Your task to perform on an android device: change notifications settings Image 0: 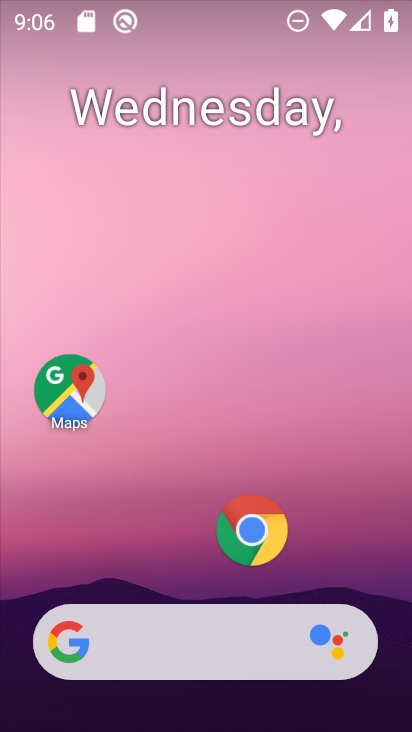
Step 0: drag from (164, 595) to (217, 68)
Your task to perform on an android device: change notifications settings Image 1: 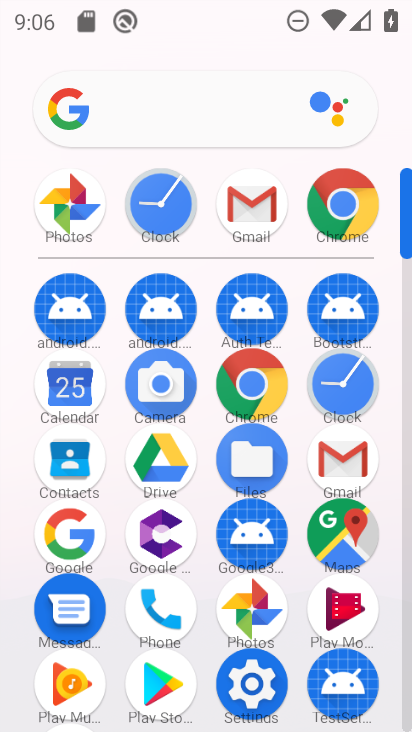
Step 1: click (248, 696)
Your task to perform on an android device: change notifications settings Image 2: 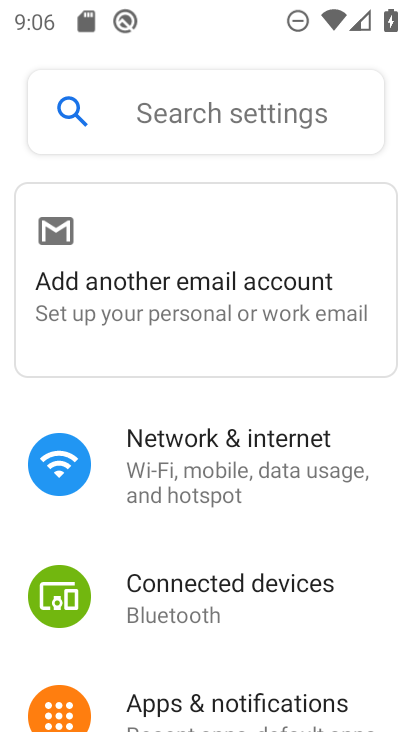
Step 2: click (196, 694)
Your task to perform on an android device: change notifications settings Image 3: 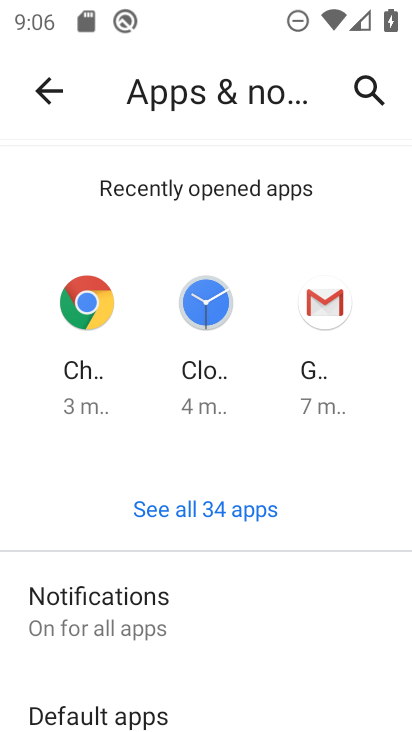
Step 3: drag from (189, 704) to (265, 352)
Your task to perform on an android device: change notifications settings Image 4: 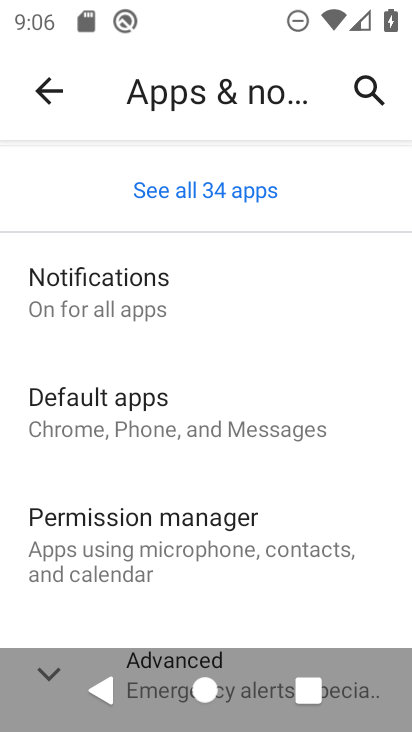
Step 4: click (150, 280)
Your task to perform on an android device: change notifications settings Image 5: 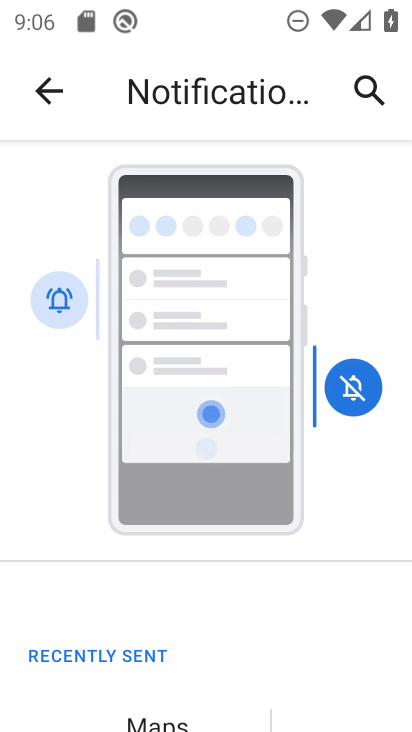
Step 5: drag from (164, 675) to (276, 114)
Your task to perform on an android device: change notifications settings Image 6: 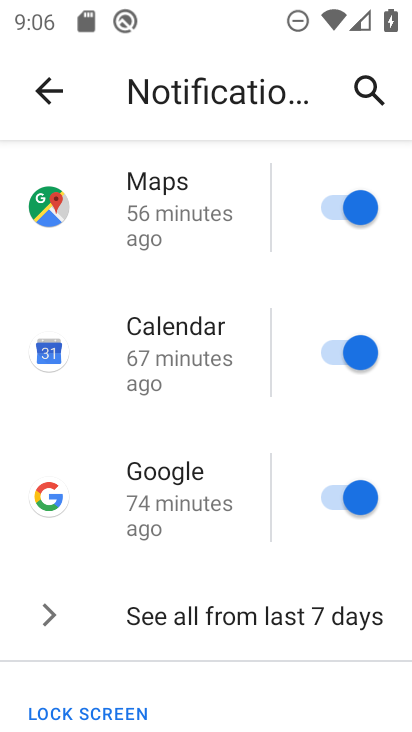
Step 6: drag from (211, 636) to (238, 192)
Your task to perform on an android device: change notifications settings Image 7: 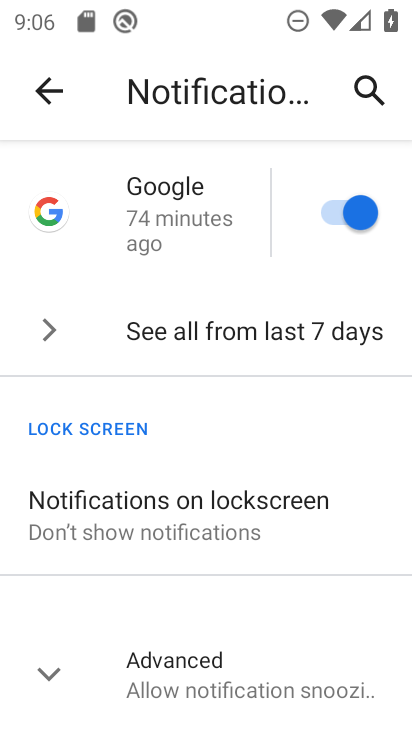
Step 7: click (186, 666)
Your task to perform on an android device: change notifications settings Image 8: 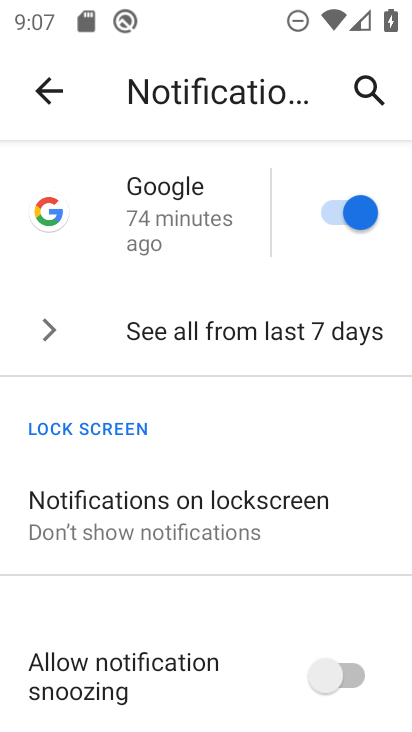
Step 8: drag from (177, 656) to (213, 402)
Your task to perform on an android device: change notifications settings Image 9: 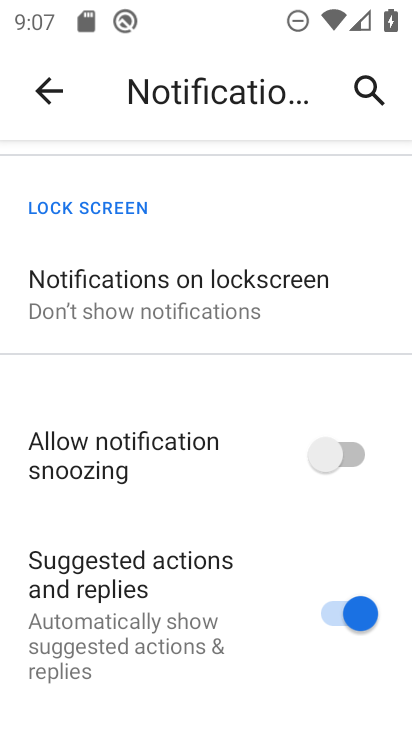
Step 9: click (341, 445)
Your task to perform on an android device: change notifications settings Image 10: 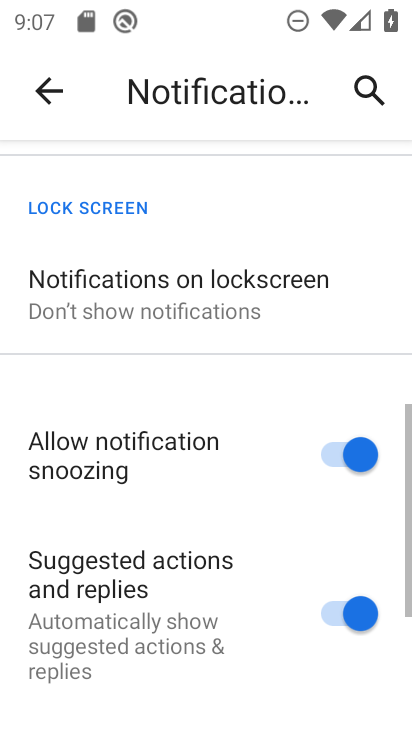
Step 10: task complete